Your task to perform on an android device: read, delete, or share a saved page in the chrome app Image 0: 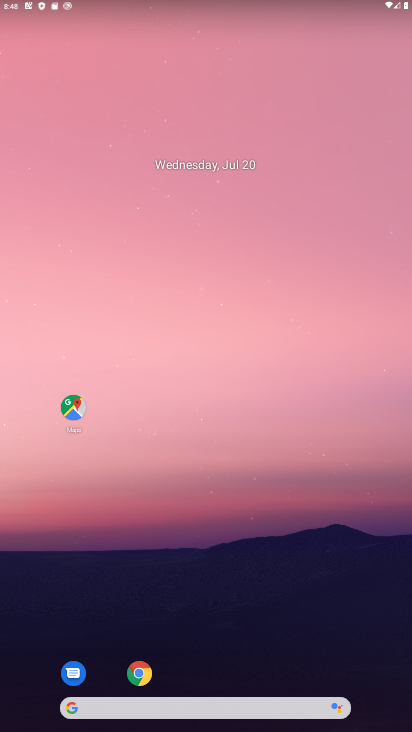
Step 0: drag from (224, 656) to (302, 175)
Your task to perform on an android device: read, delete, or share a saved page in the chrome app Image 1: 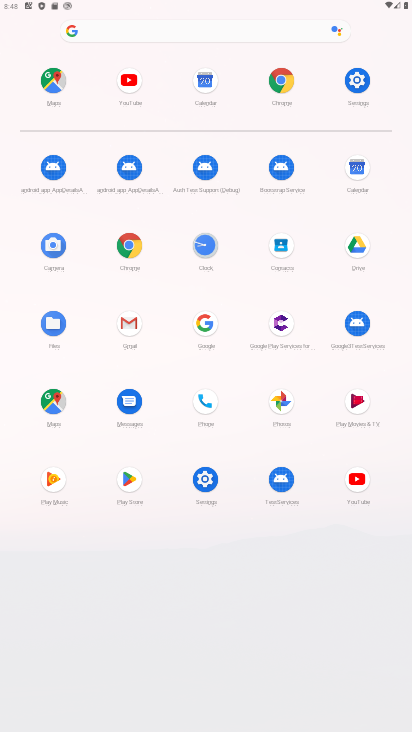
Step 1: click (132, 245)
Your task to perform on an android device: read, delete, or share a saved page in the chrome app Image 2: 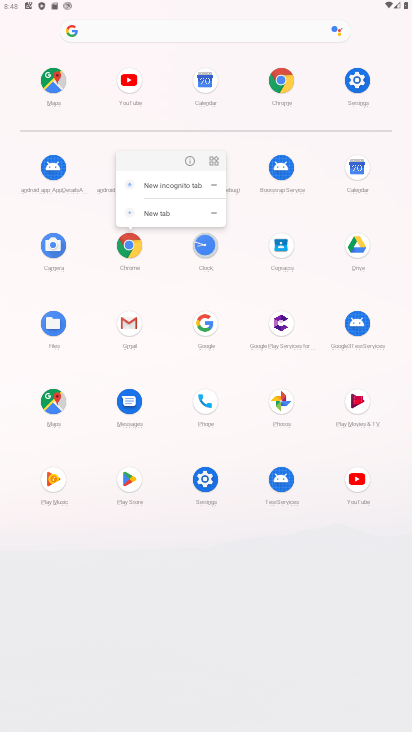
Step 2: click (193, 155)
Your task to perform on an android device: read, delete, or share a saved page in the chrome app Image 3: 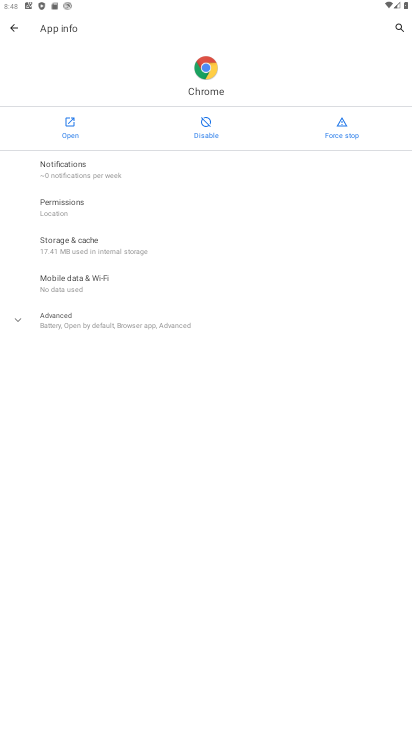
Step 3: click (71, 123)
Your task to perform on an android device: read, delete, or share a saved page in the chrome app Image 4: 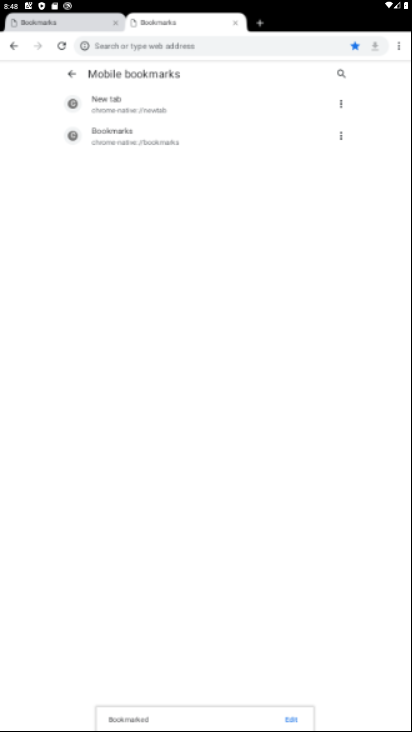
Step 4: drag from (226, 507) to (272, 137)
Your task to perform on an android device: read, delete, or share a saved page in the chrome app Image 5: 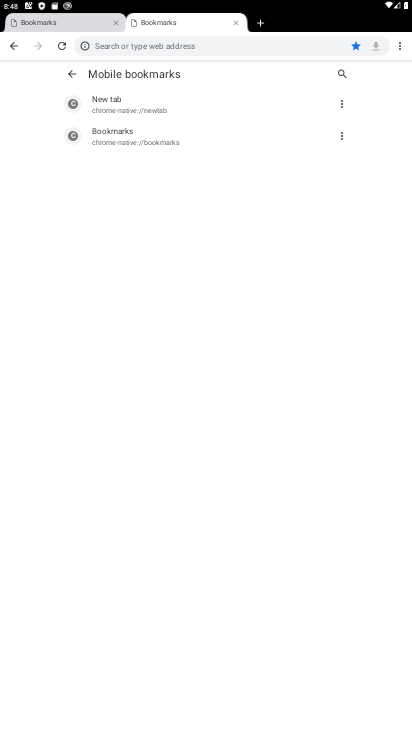
Step 5: drag from (403, 42) to (328, 112)
Your task to perform on an android device: read, delete, or share a saved page in the chrome app Image 6: 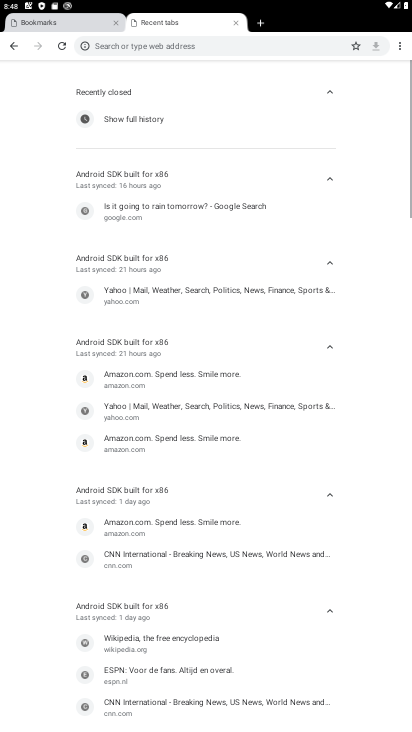
Step 6: drag from (204, 349) to (197, 173)
Your task to perform on an android device: read, delete, or share a saved page in the chrome app Image 7: 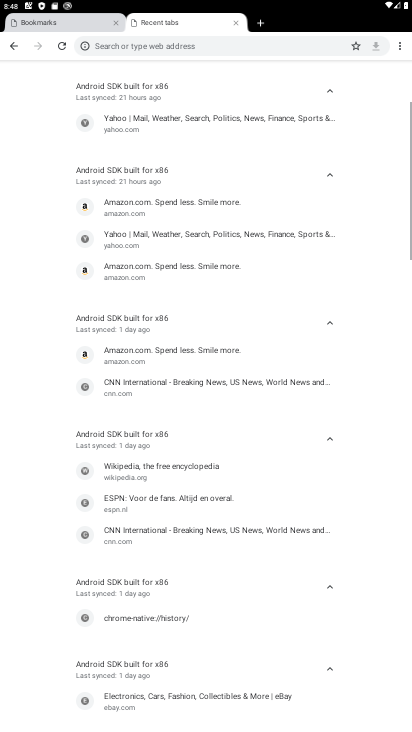
Step 7: drag from (192, 164) to (266, 648)
Your task to perform on an android device: read, delete, or share a saved page in the chrome app Image 8: 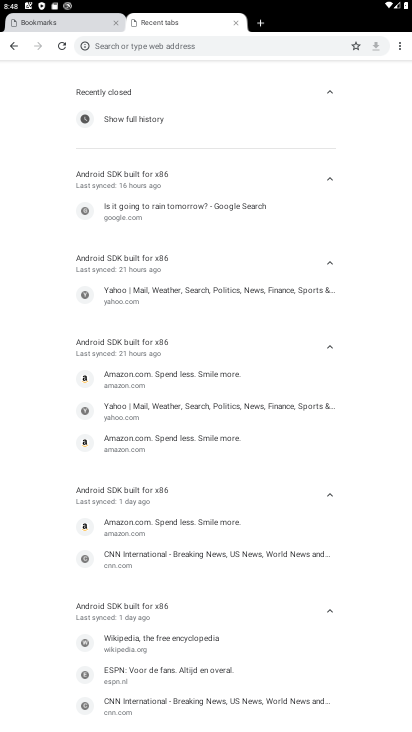
Step 8: drag from (196, 175) to (250, 524)
Your task to perform on an android device: read, delete, or share a saved page in the chrome app Image 9: 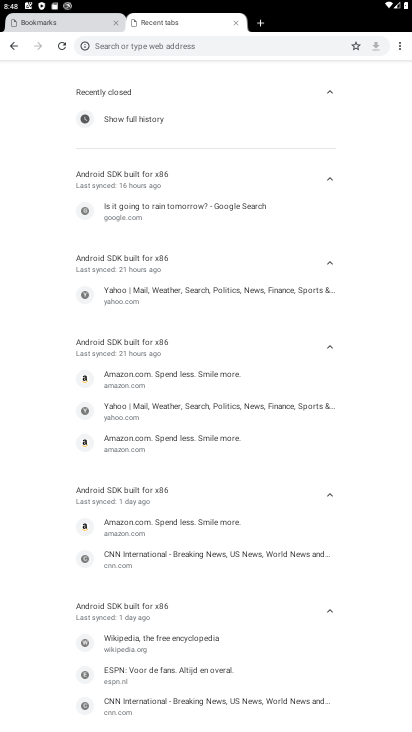
Step 9: drag from (183, 137) to (251, 481)
Your task to perform on an android device: read, delete, or share a saved page in the chrome app Image 10: 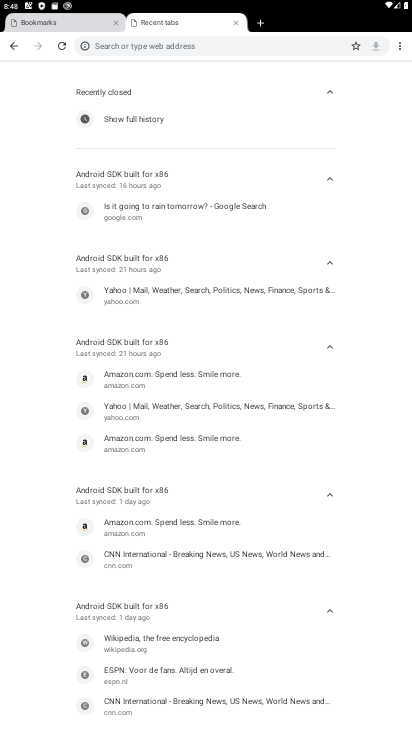
Step 10: drag from (169, 156) to (270, 389)
Your task to perform on an android device: read, delete, or share a saved page in the chrome app Image 11: 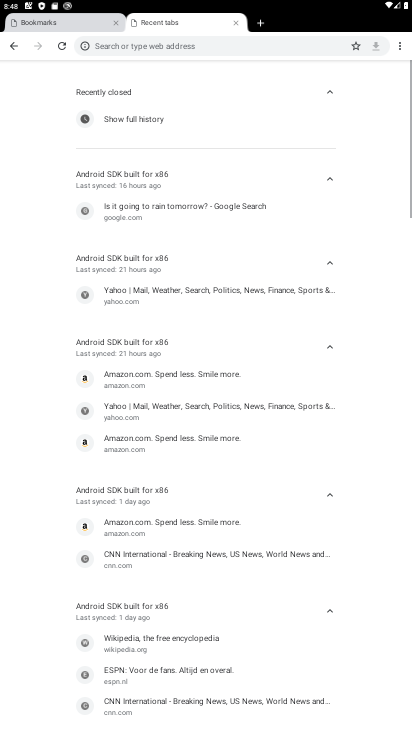
Step 11: click (217, 473)
Your task to perform on an android device: read, delete, or share a saved page in the chrome app Image 12: 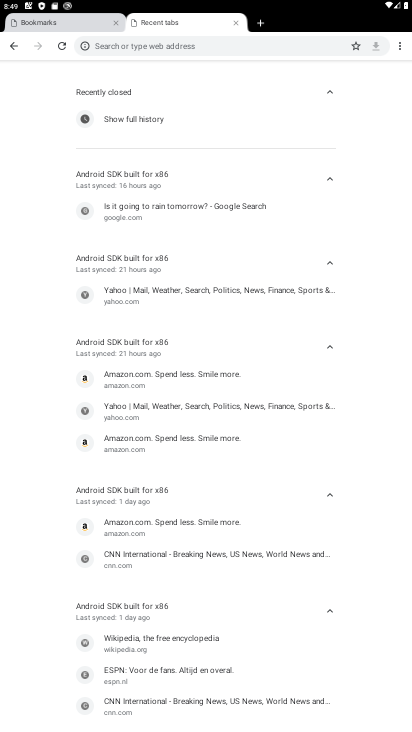
Step 12: drag from (393, 44) to (324, 96)
Your task to perform on an android device: read, delete, or share a saved page in the chrome app Image 13: 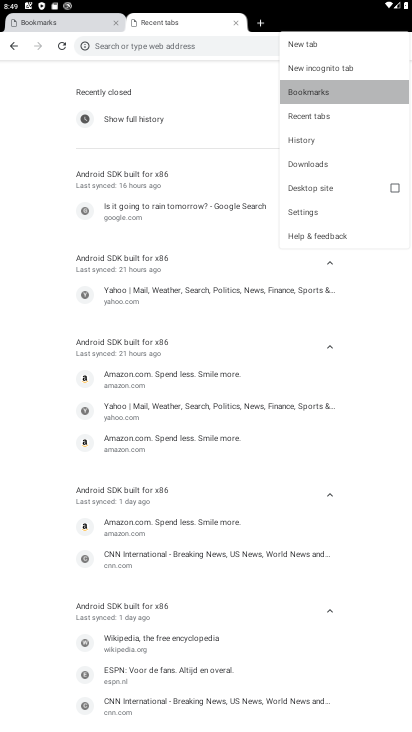
Step 13: click (324, 96)
Your task to perform on an android device: read, delete, or share a saved page in the chrome app Image 14: 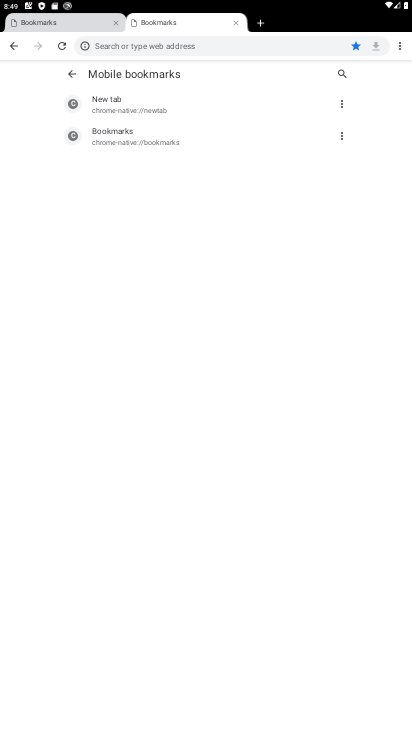
Step 14: task complete